Your task to perform on an android device: set an alarm Image 0: 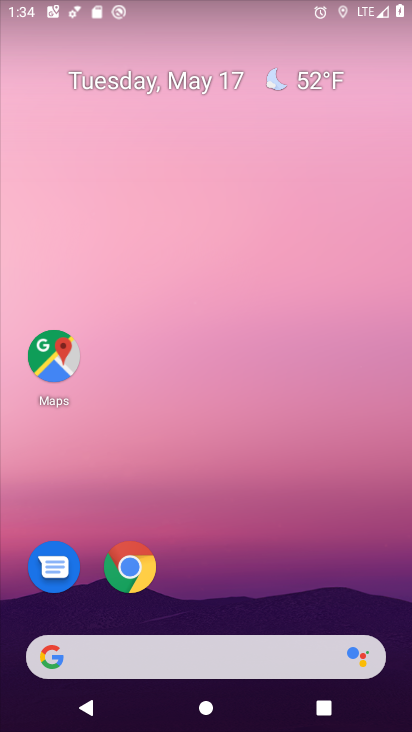
Step 0: click (175, 74)
Your task to perform on an android device: set an alarm Image 1: 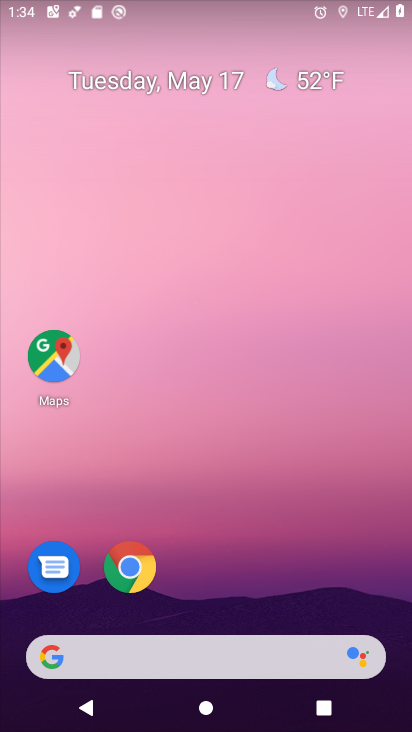
Step 1: drag from (218, 589) to (233, 14)
Your task to perform on an android device: set an alarm Image 2: 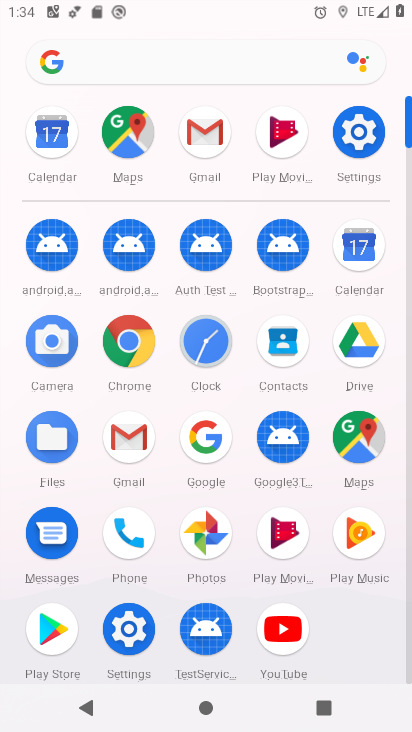
Step 2: click (199, 344)
Your task to perform on an android device: set an alarm Image 3: 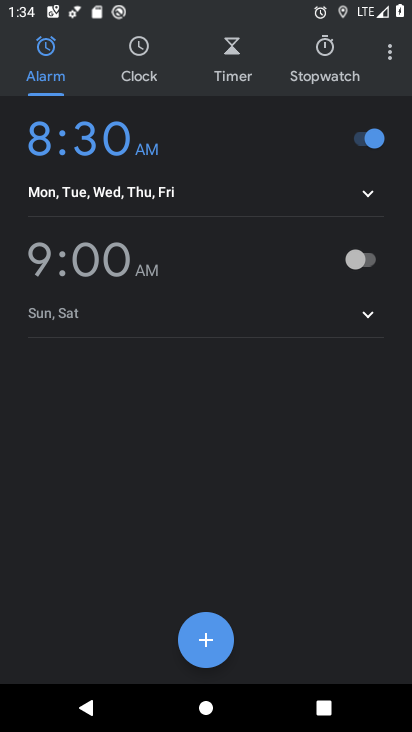
Step 3: click (155, 189)
Your task to perform on an android device: set an alarm Image 4: 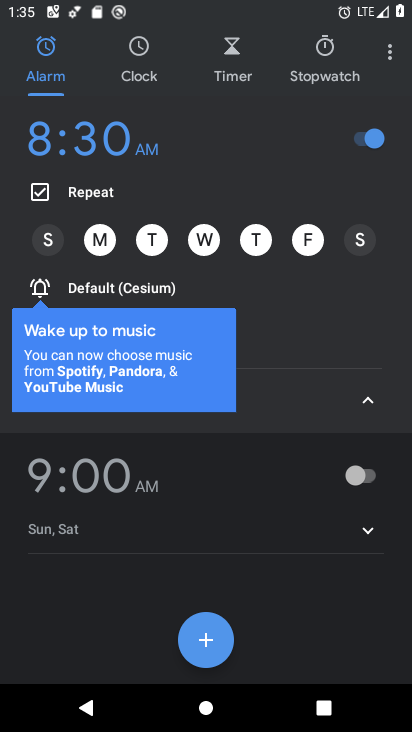
Step 4: click (129, 140)
Your task to perform on an android device: set an alarm Image 5: 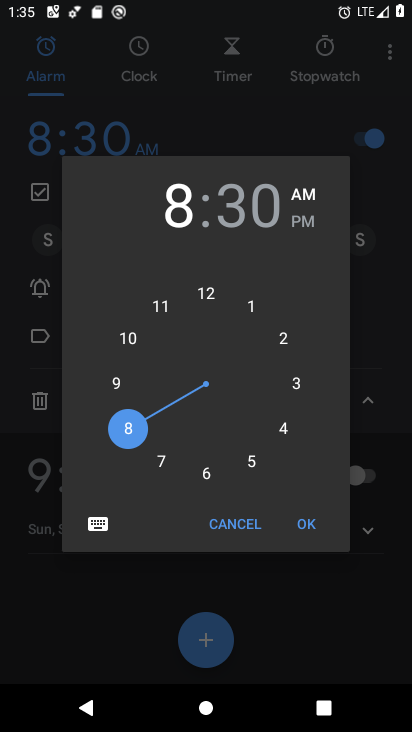
Step 5: click (115, 392)
Your task to perform on an android device: set an alarm Image 6: 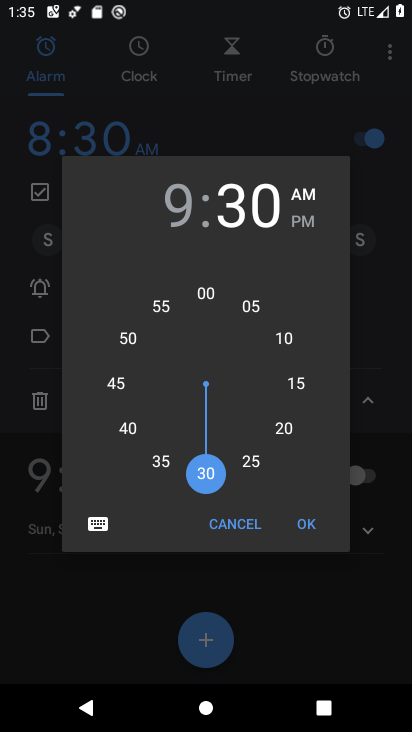
Step 6: click (108, 394)
Your task to perform on an android device: set an alarm Image 7: 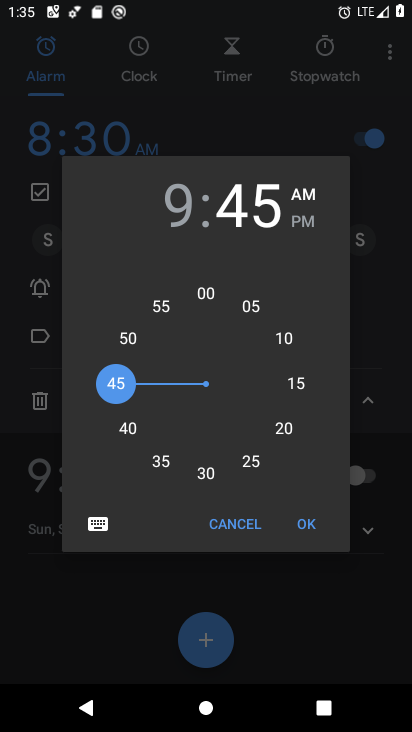
Step 7: click (310, 511)
Your task to perform on an android device: set an alarm Image 8: 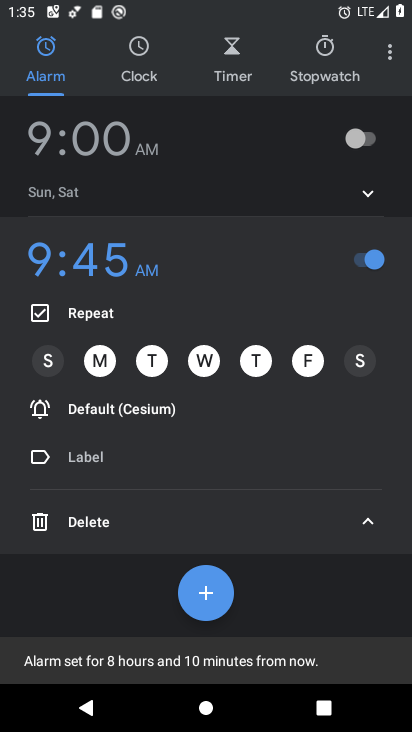
Step 8: click (309, 525)
Your task to perform on an android device: set an alarm Image 9: 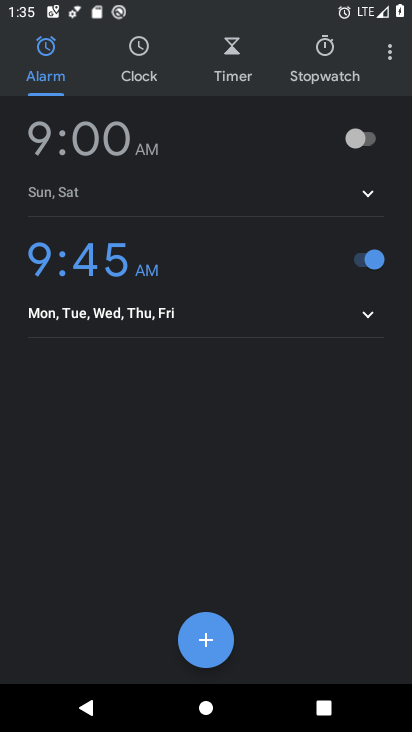
Step 9: task complete